Your task to perform on an android device: Search for Mexican restaurants on Maps Image 0: 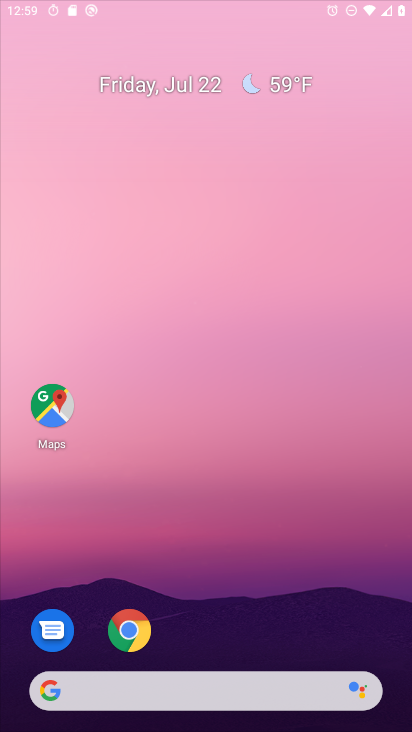
Step 0: press home button
Your task to perform on an android device: Search for Mexican restaurants on Maps Image 1: 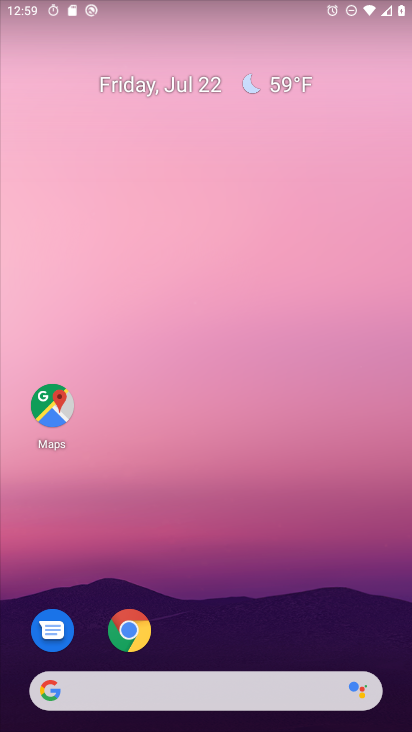
Step 1: drag from (274, 636) to (300, 147)
Your task to perform on an android device: Search for Mexican restaurants on Maps Image 2: 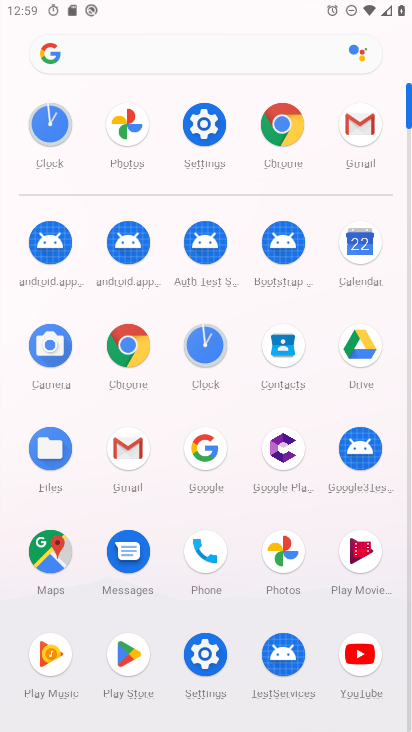
Step 2: click (47, 570)
Your task to perform on an android device: Search for Mexican restaurants on Maps Image 3: 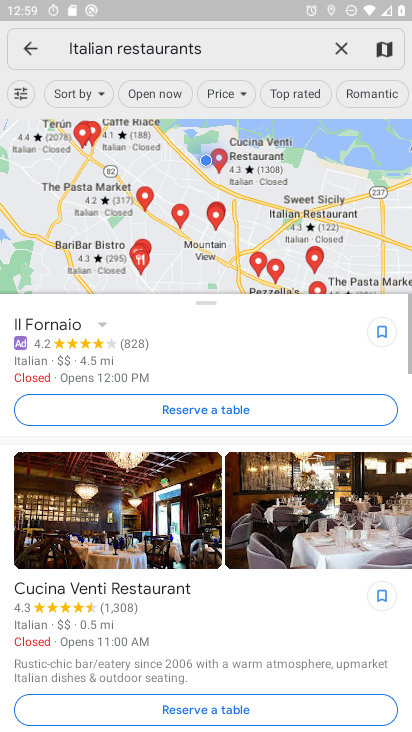
Step 3: click (342, 46)
Your task to perform on an android device: Search for Mexican restaurants on Maps Image 4: 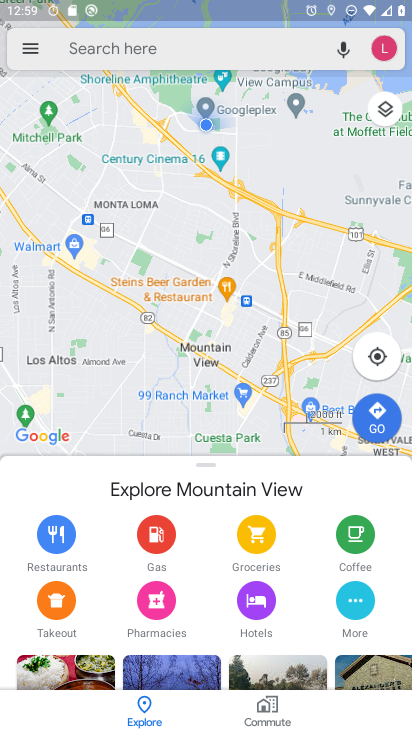
Step 4: click (159, 47)
Your task to perform on an android device: Search for Mexican restaurants on Maps Image 5: 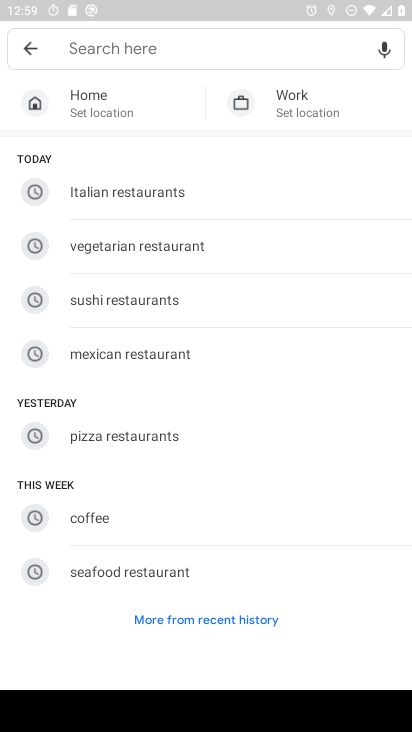
Step 5: click (131, 346)
Your task to perform on an android device: Search for Mexican restaurants on Maps Image 6: 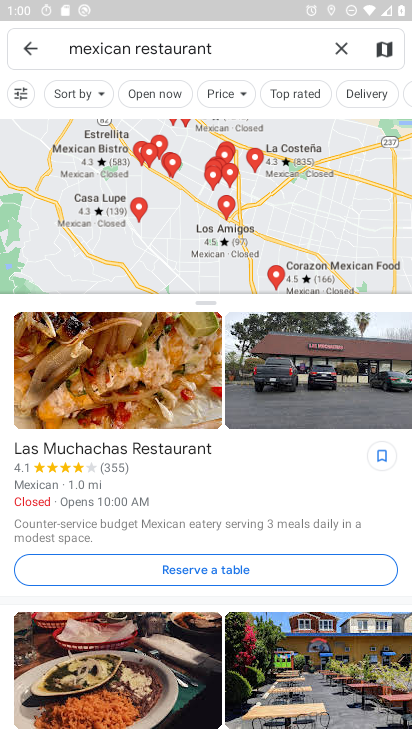
Step 6: task complete